Your task to perform on an android device: see sites visited before in the chrome app Image 0: 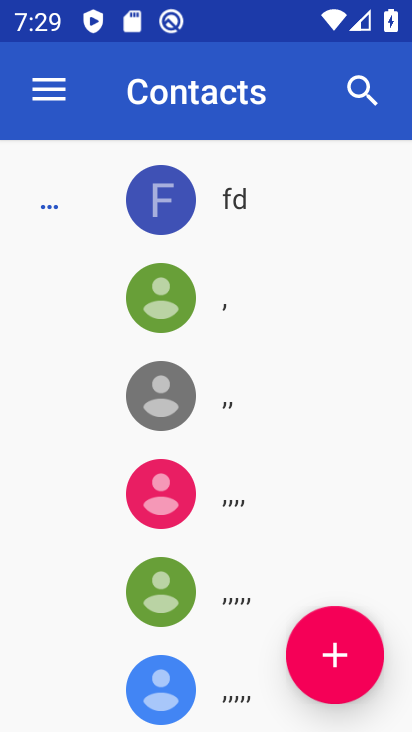
Step 0: press home button
Your task to perform on an android device: see sites visited before in the chrome app Image 1: 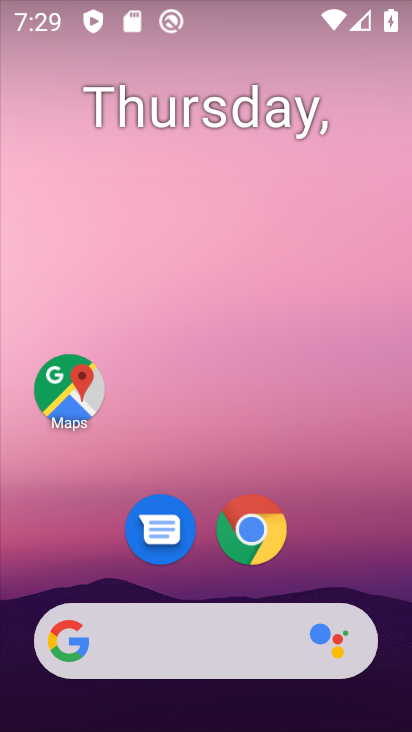
Step 1: drag from (389, 572) to (388, 312)
Your task to perform on an android device: see sites visited before in the chrome app Image 2: 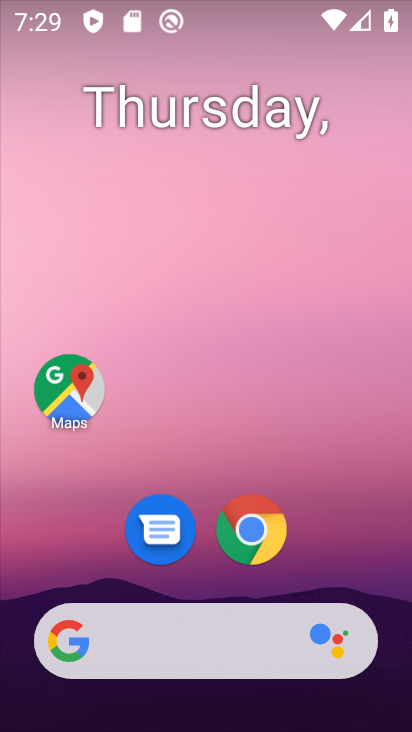
Step 2: drag from (393, 577) to (371, 203)
Your task to perform on an android device: see sites visited before in the chrome app Image 3: 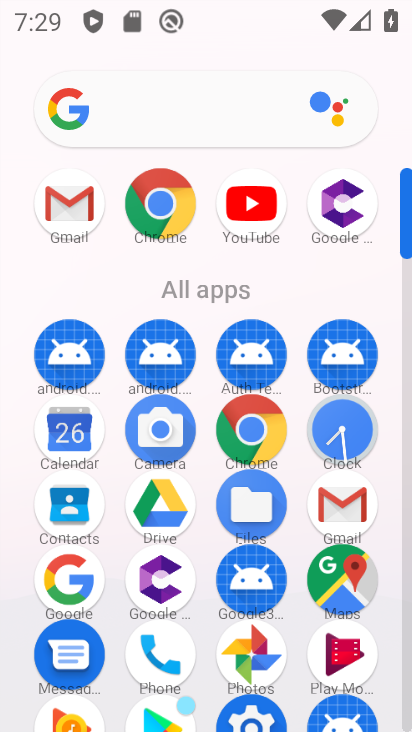
Step 3: click (273, 447)
Your task to perform on an android device: see sites visited before in the chrome app Image 4: 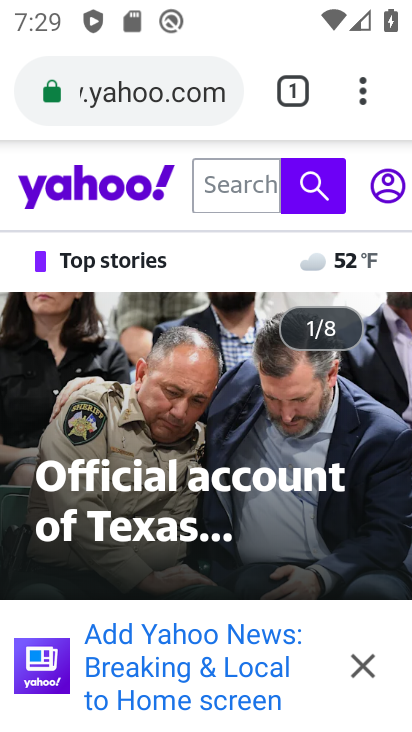
Step 4: click (365, 107)
Your task to perform on an android device: see sites visited before in the chrome app Image 5: 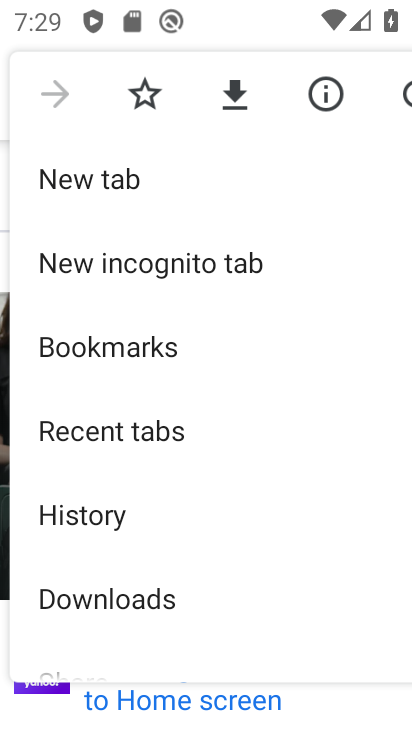
Step 5: drag from (338, 436) to (340, 372)
Your task to perform on an android device: see sites visited before in the chrome app Image 6: 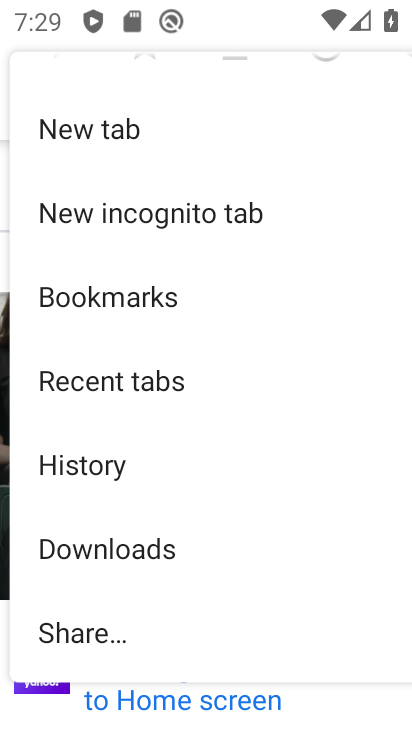
Step 6: drag from (337, 492) to (330, 376)
Your task to perform on an android device: see sites visited before in the chrome app Image 7: 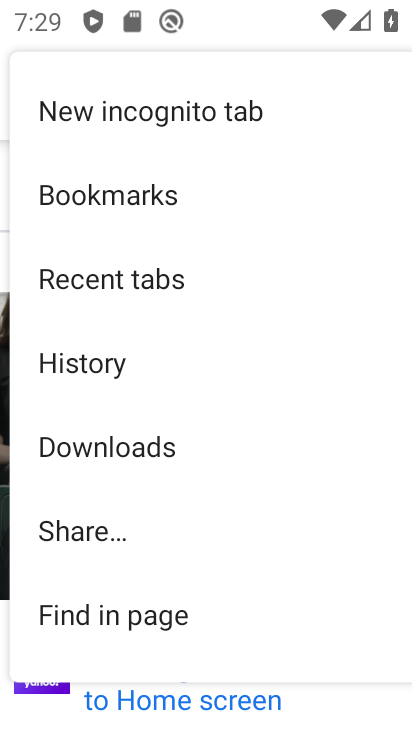
Step 7: drag from (316, 485) to (322, 344)
Your task to perform on an android device: see sites visited before in the chrome app Image 8: 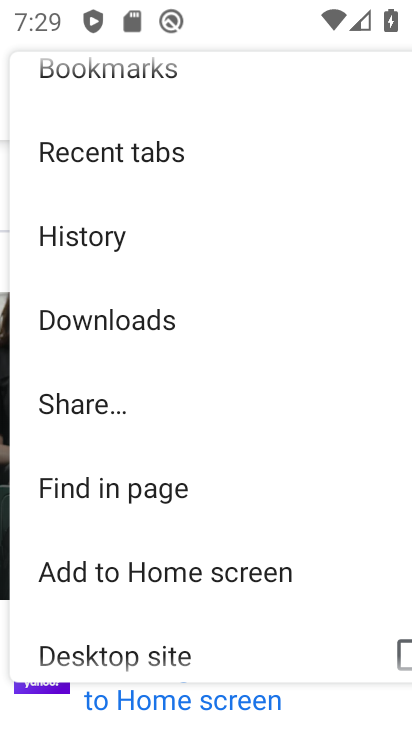
Step 8: drag from (331, 483) to (331, 244)
Your task to perform on an android device: see sites visited before in the chrome app Image 9: 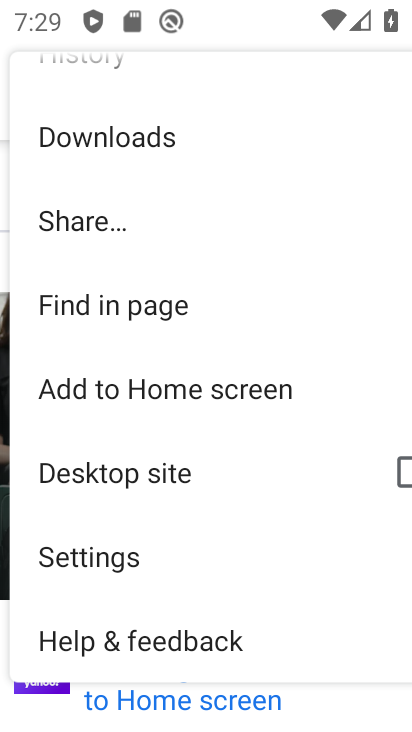
Step 9: drag from (327, 157) to (335, 301)
Your task to perform on an android device: see sites visited before in the chrome app Image 10: 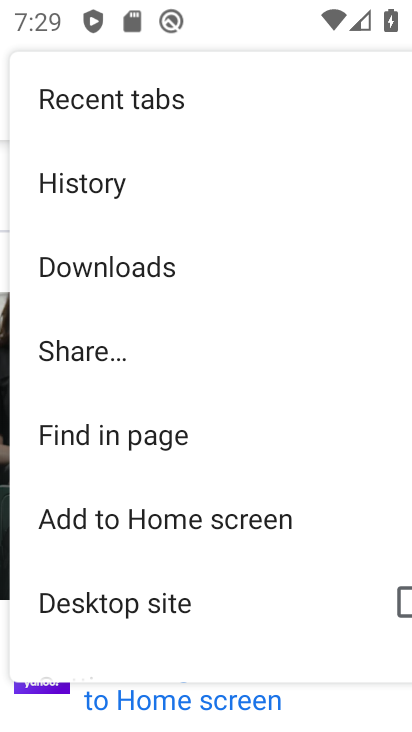
Step 10: click (146, 195)
Your task to perform on an android device: see sites visited before in the chrome app Image 11: 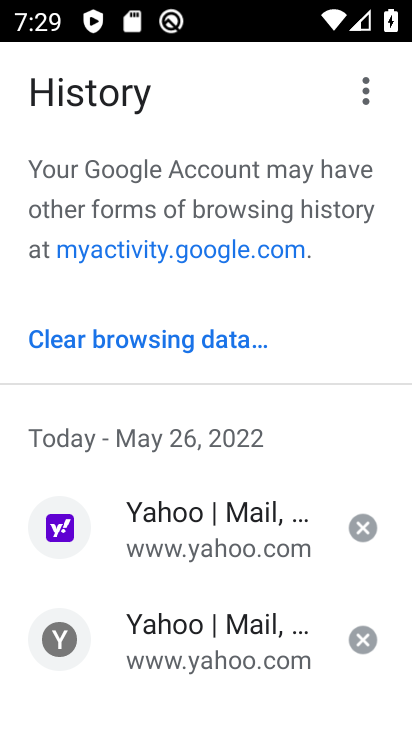
Step 11: task complete